Your task to perform on an android device: When is my next meeting? Image 0: 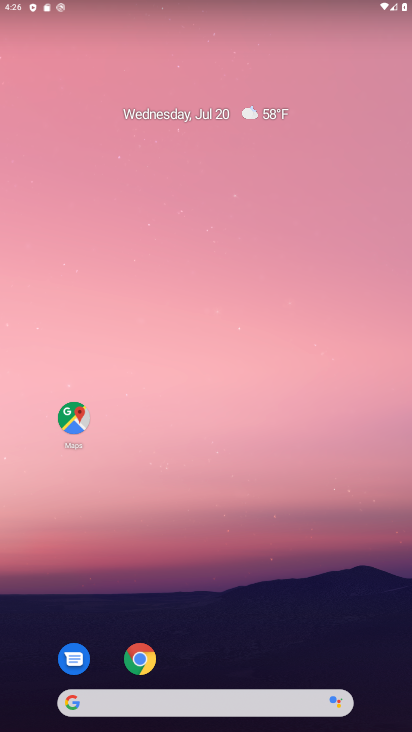
Step 0: drag from (215, 708) to (279, 182)
Your task to perform on an android device: When is my next meeting? Image 1: 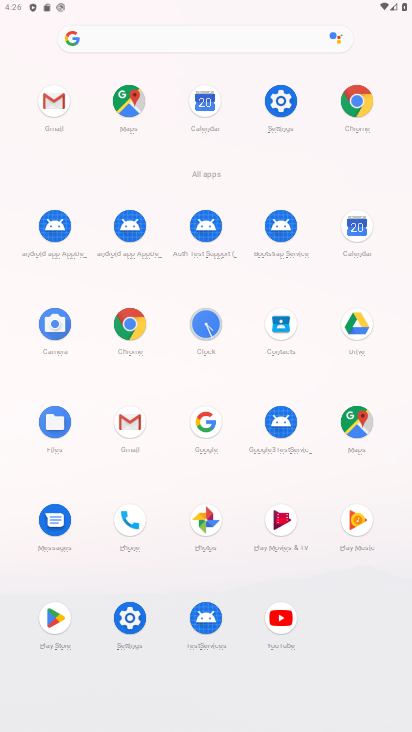
Step 1: click (359, 235)
Your task to perform on an android device: When is my next meeting? Image 2: 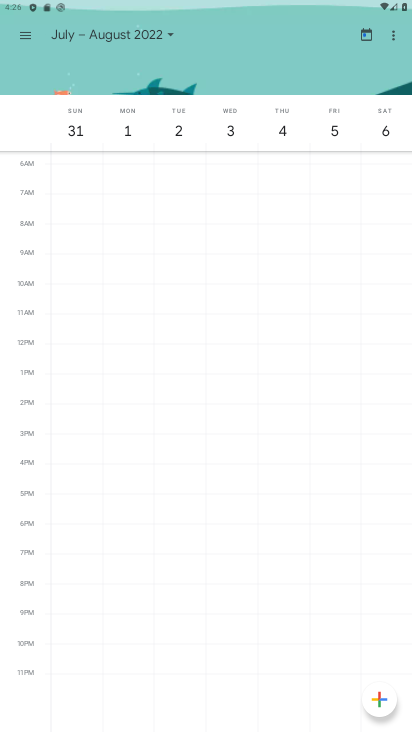
Step 2: click (167, 32)
Your task to perform on an android device: When is my next meeting? Image 3: 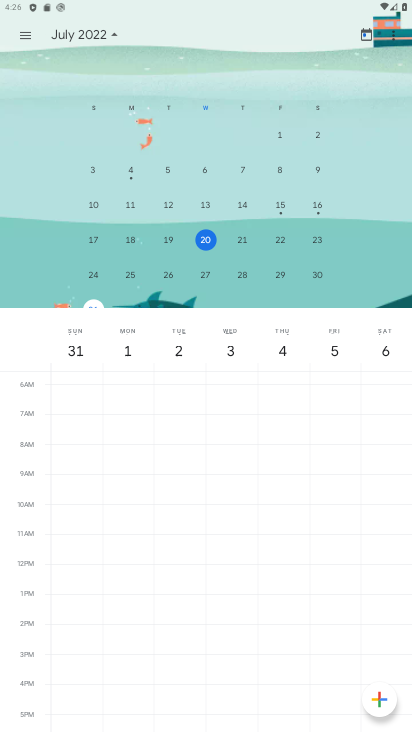
Step 3: click (202, 240)
Your task to perform on an android device: When is my next meeting? Image 4: 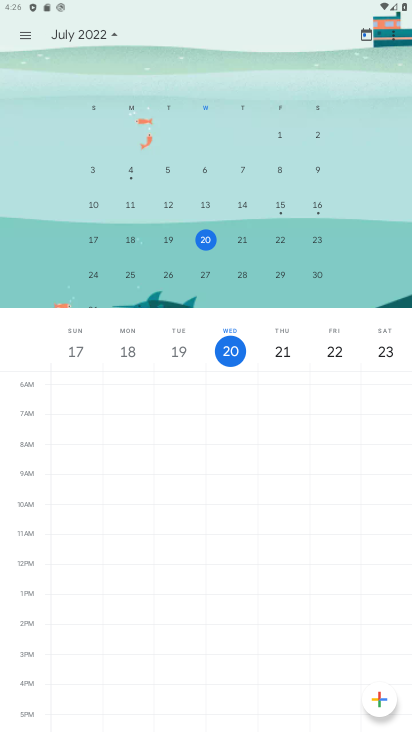
Step 4: task complete